Your task to perform on an android device: Open settings on Google Maps Image 0: 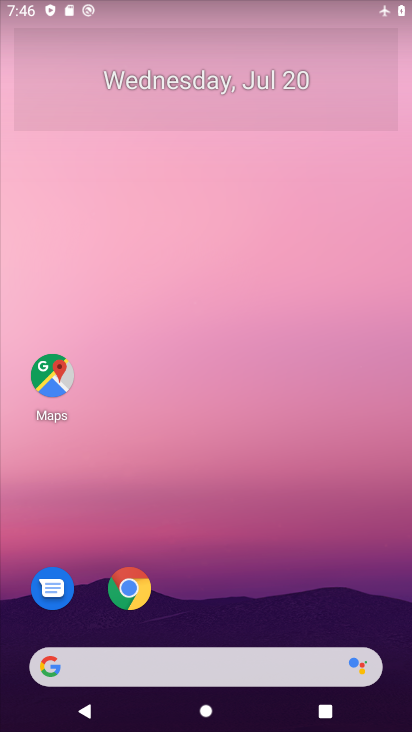
Step 0: click (53, 368)
Your task to perform on an android device: Open settings on Google Maps Image 1: 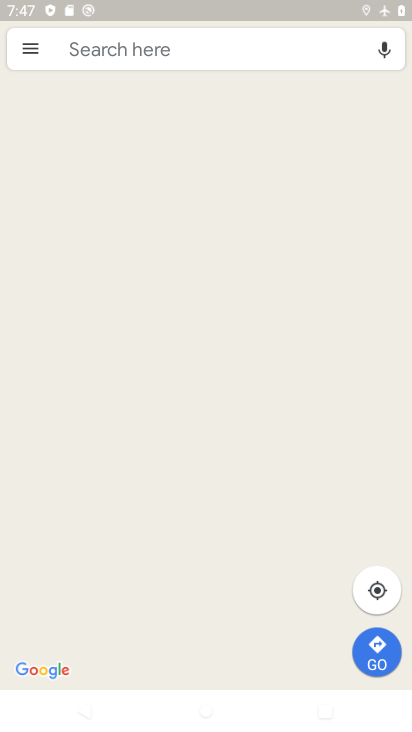
Step 1: click (39, 48)
Your task to perform on an android device: Open settings on Google Maps Image 2: 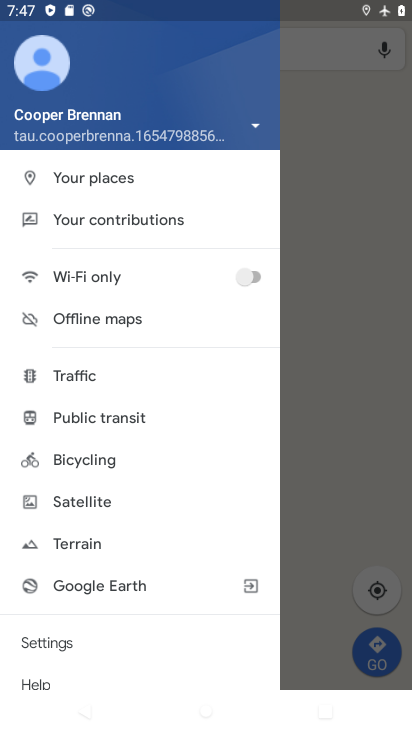
Step 2: click (73, 644)
Your task to perform on an android device: Open settings on Google Maps Image 3: 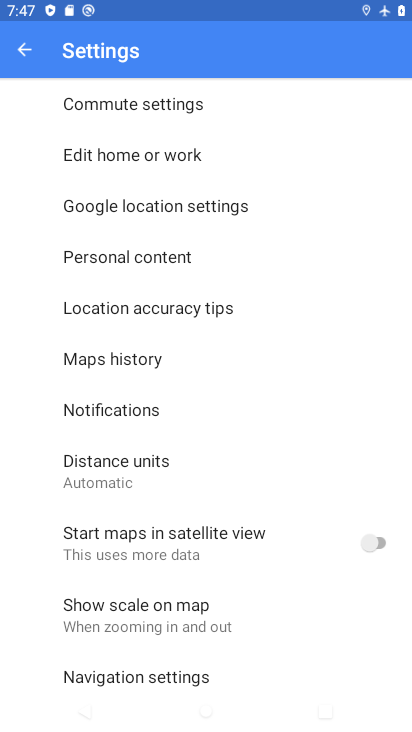
Step 3: task complete